Your task to perform on an android device: allow cookies in the chrome app Image 0: 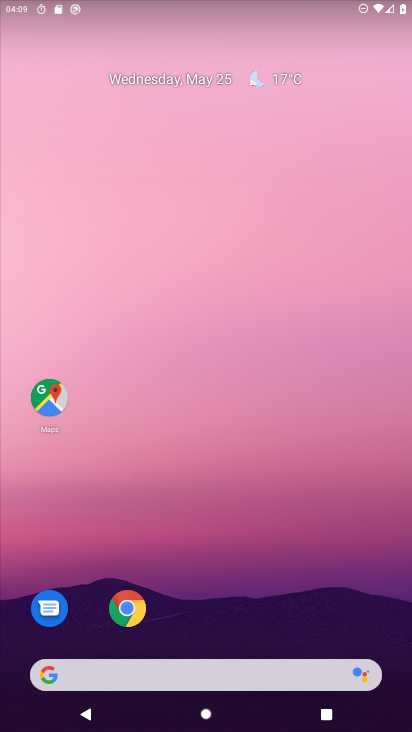
Step 0: drag from (303, 538) to (272, 116)
Your task to perform on an android device: allow cookies in the chrome app Image 1: 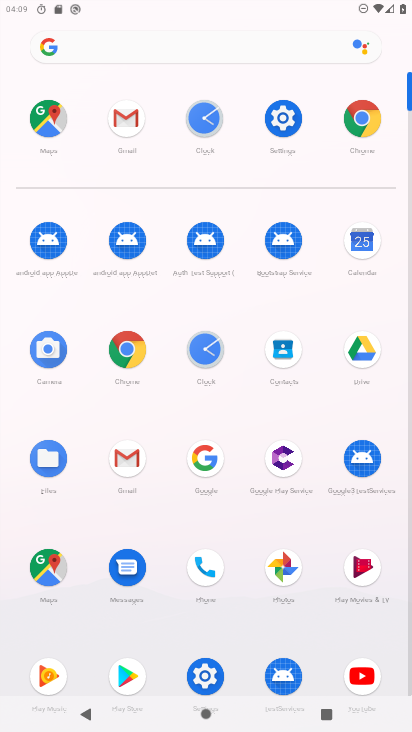
Step 1: click (356, 129)
Your task to perform on an android device: allow cookies in the chrome app Image 2: 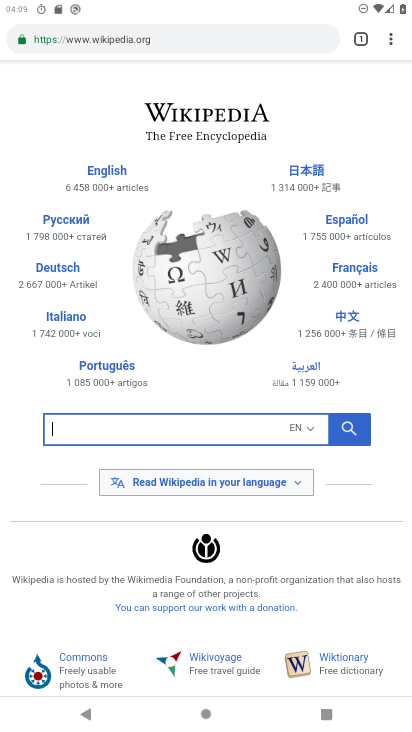
Step 2: drag from (392, 38) to (245, 471)
Your task to perform on an android device: allow cookies in the chrome app Image 3: 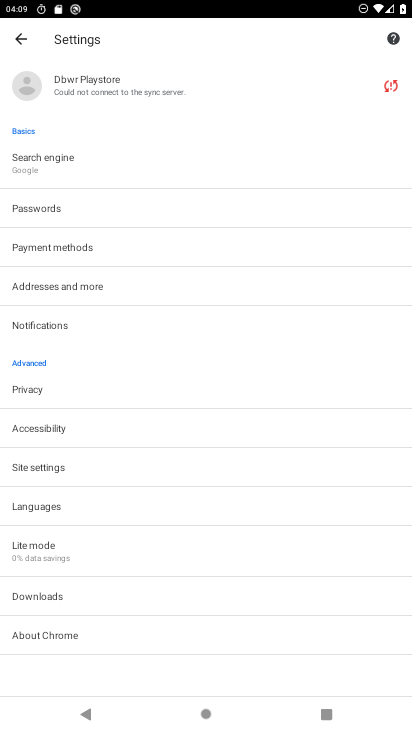
Step 3: click (86, 469)
Your task to perform on an android device: allow cookies in the chrome app Image 4: 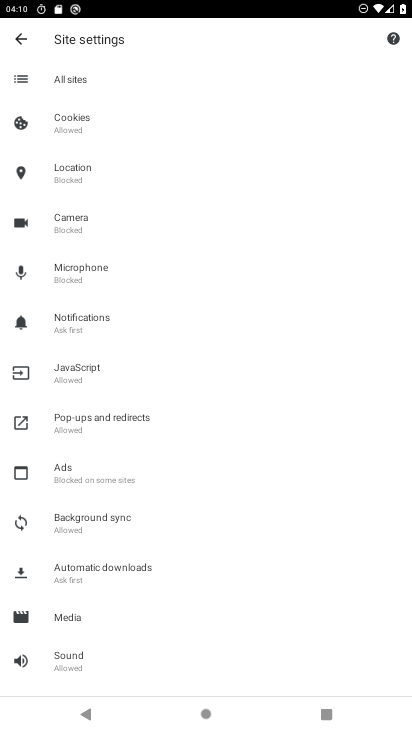
Step 4: click (89, 128)
Your task to perform on an android device: allow cookies in the chrome app Image 5: 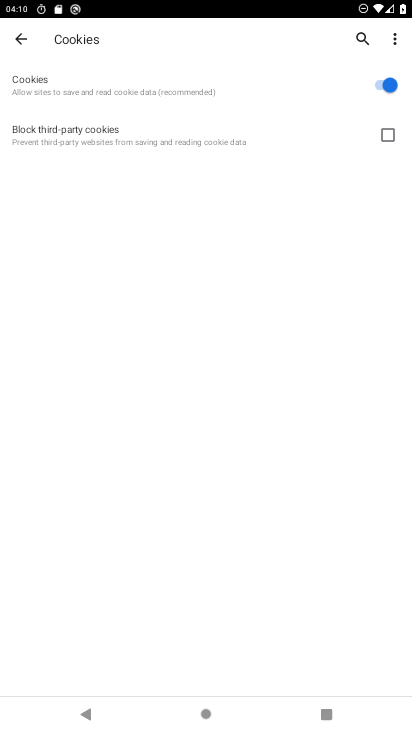
Step 5: task complete